Your task to perform on an android device: install app "Messages" Image 0: 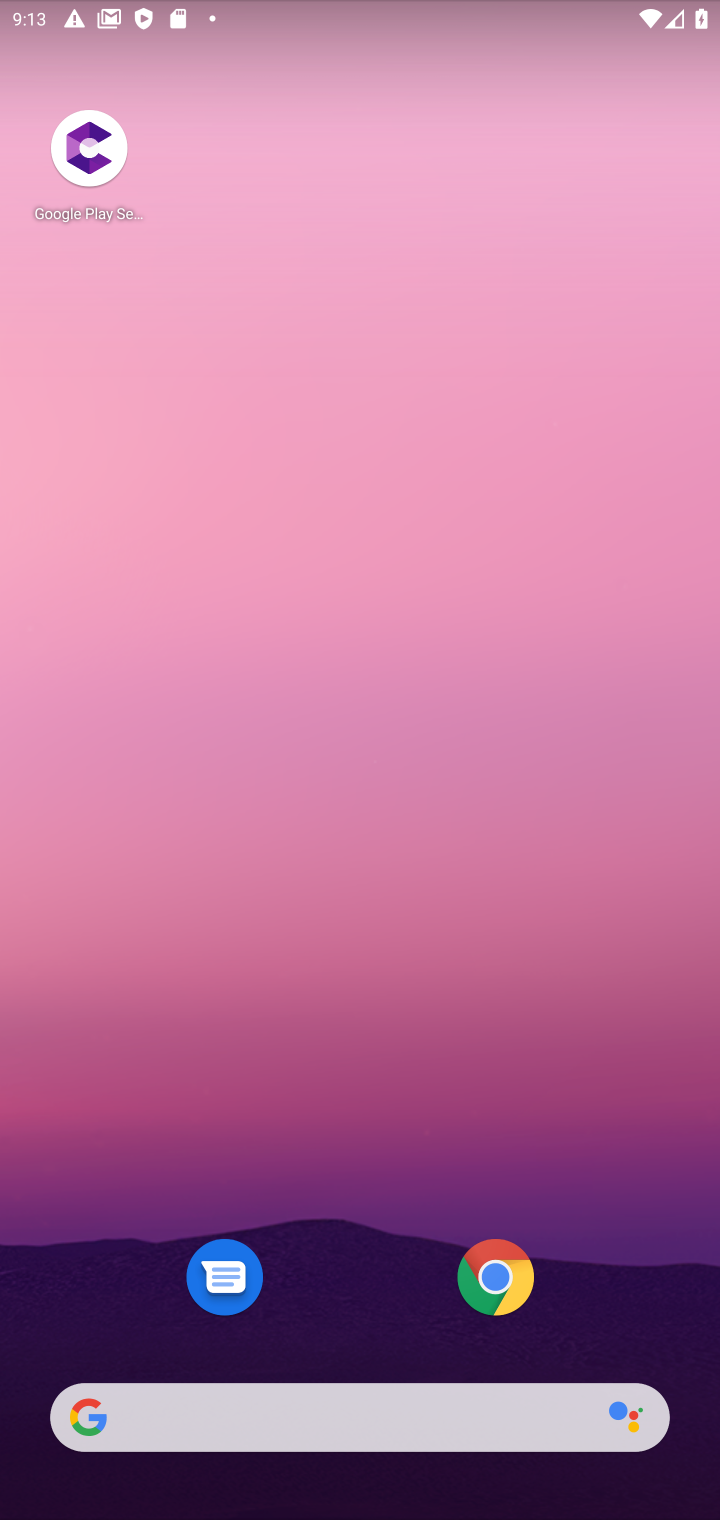
Step 0: drag from (428, 1351) to (345, 355)
Your task to perform on an android device: install app "Messages" Image 1: 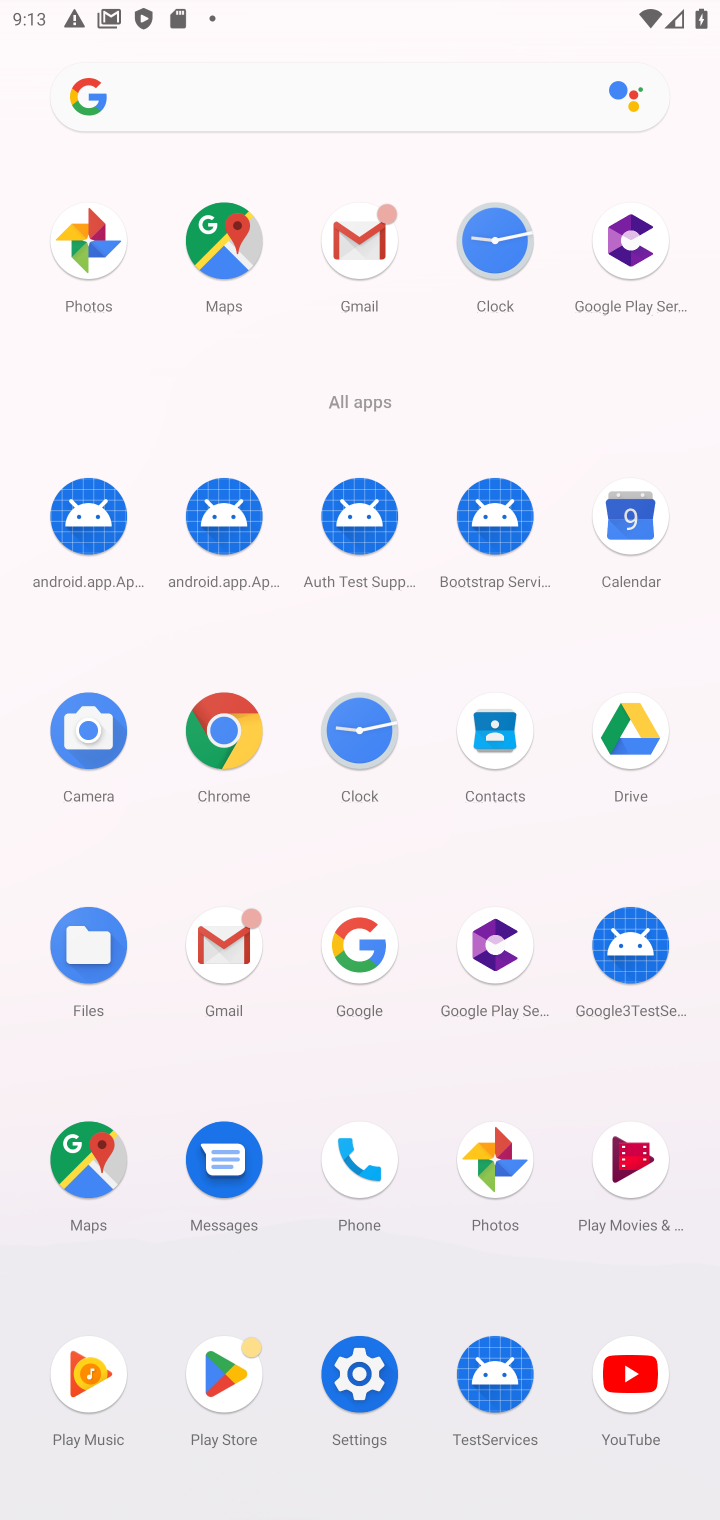
Step 1: click (227, 1151)
Your task to perform on an android device: install app "Messages" Image 2: 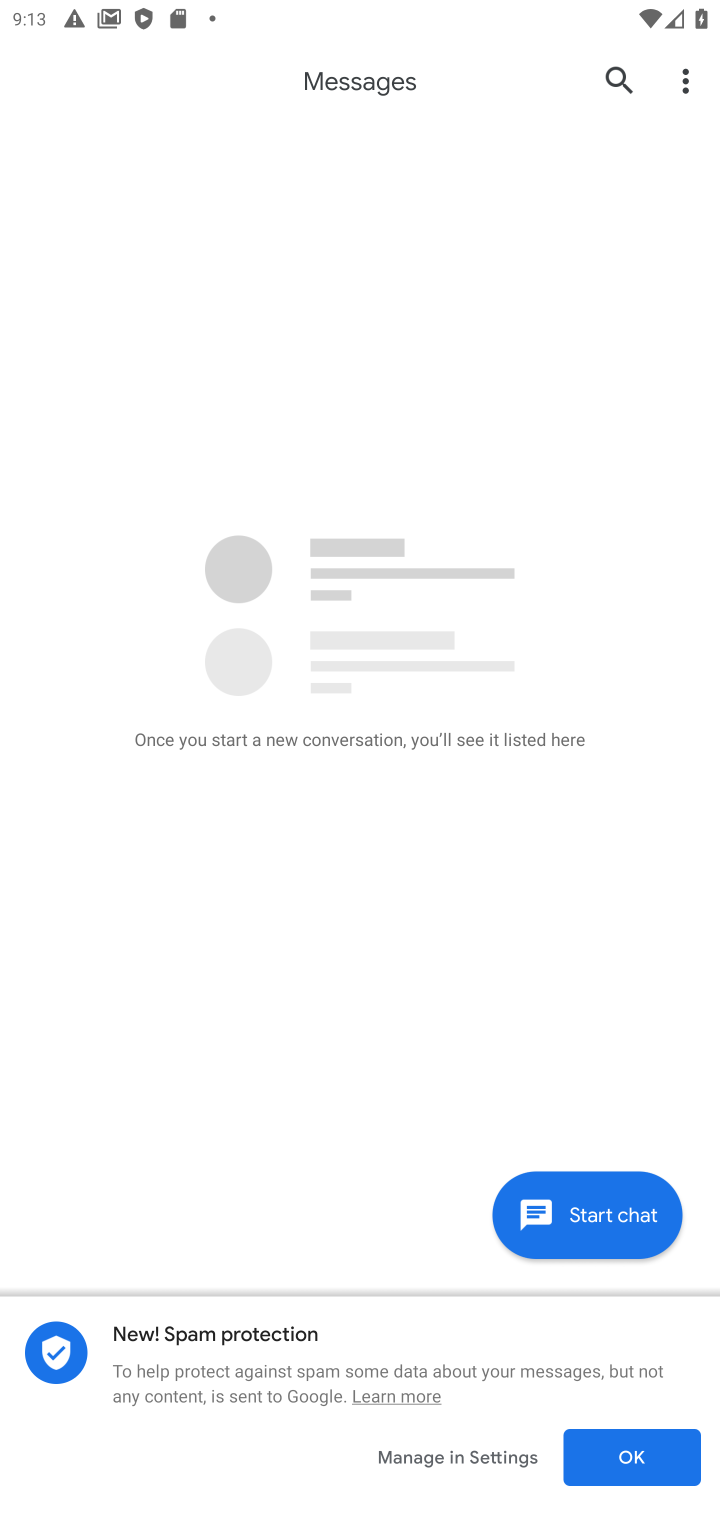
Step 2: task complete